Your task to perform on an android device: Open the map Image 0: 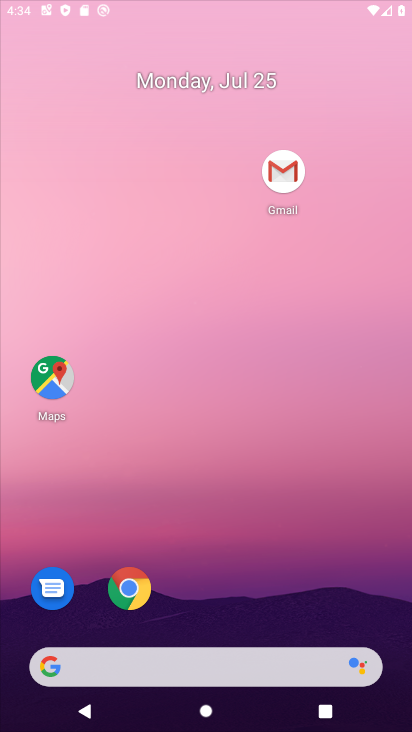
Step 0: drag from (335, 566) to (224, 9)
Your task to perform on an android device: Open the map Image 1: 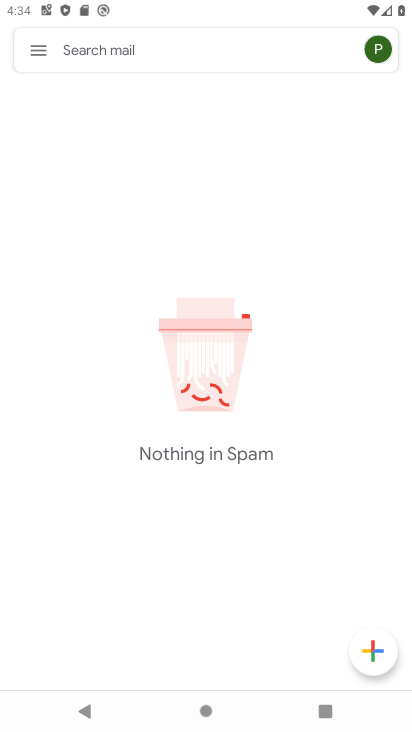
Step 1: press home button
Your task to perform on an android device: Open the map Image 2: 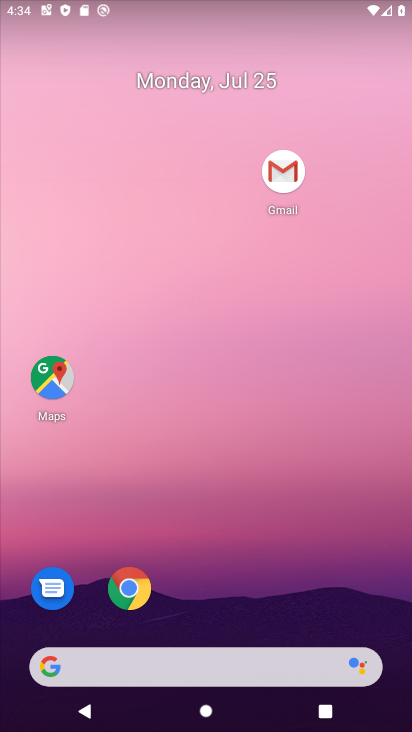
Step 2: drag from (323, 583) to (87, 61)
Your task to perform on an android device: Open the map Image 3: 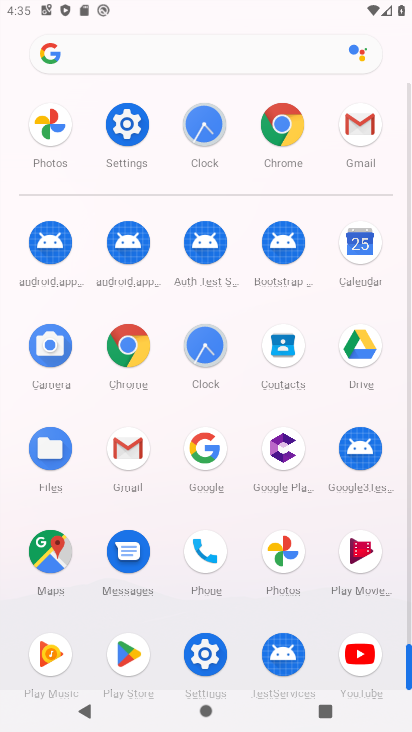
Step 3: click (59, 536)
Your task to perform on an android device: Open the map Image 4: 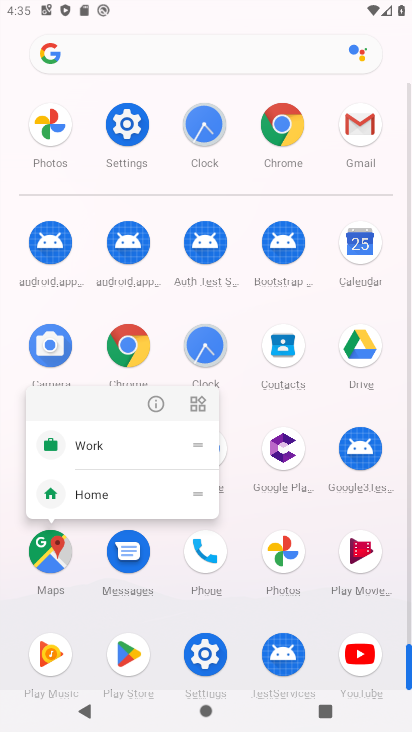
Step 4: click (47, 554)
Your task to perform on an android device: Open the map Image 5: 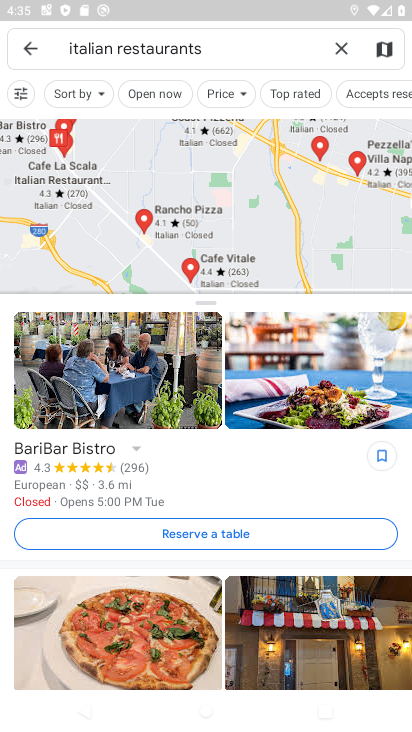
Step 5: task complete